Your task to perform on an android device: change notifications settings Image 0: 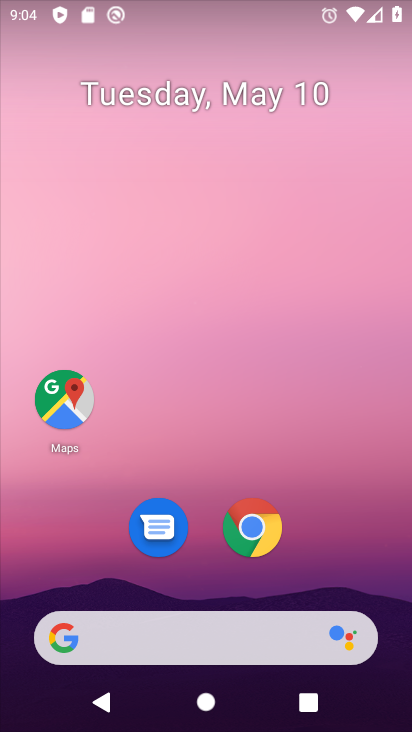
Step 0: drag from (218, 589) to (209, 52)
Your task to perform on an android device: change notifications settings Image 1: 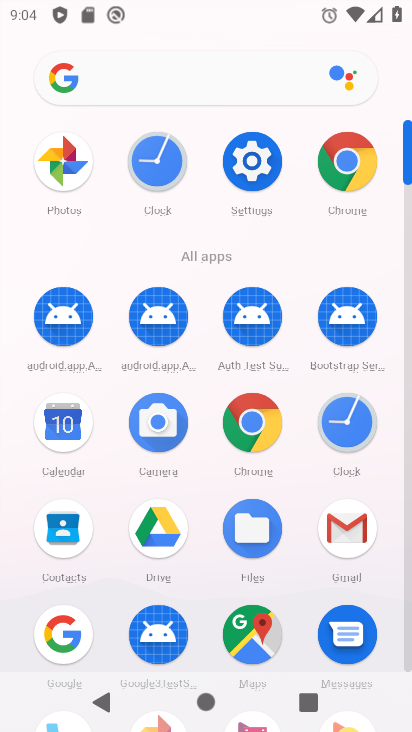
Step 1: click (258, 176)
Your task to perform on an android device: change notifications settings Image 2: 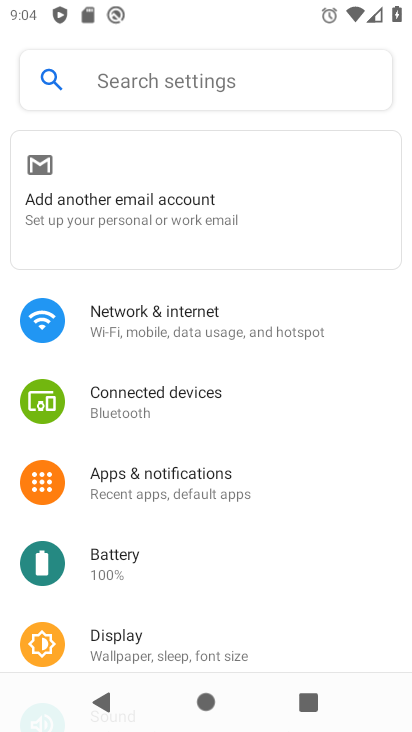
Step 2: click (174, 471)
Your task to perform on an android device: change notifications settings Image 3: 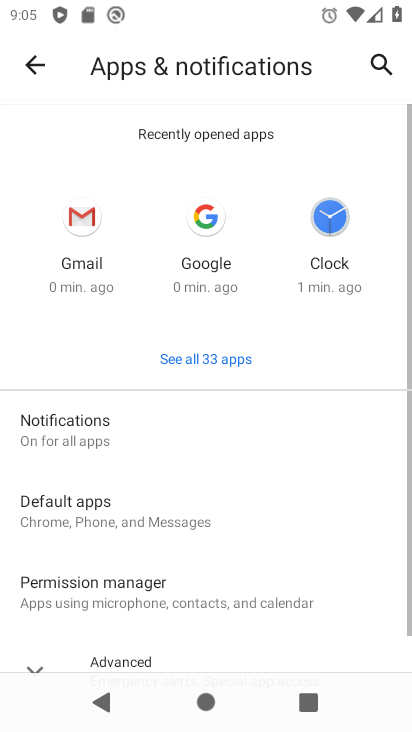
Step 3: click (120, 418)
Your task to perform on an android device: change notifications settings Image 4: 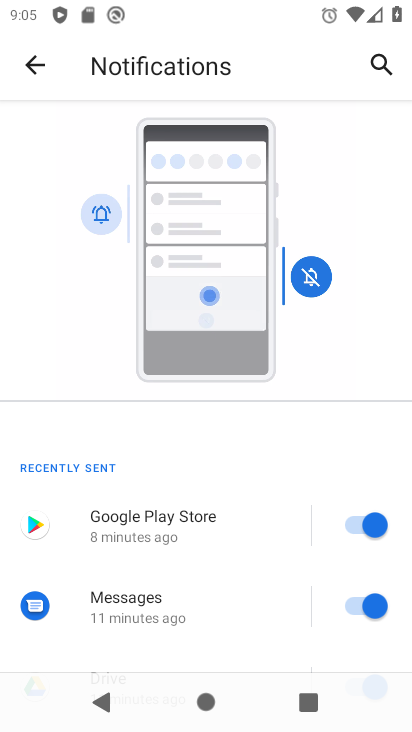
Step 4: drag from (238, 542) to (185, 94)
Your task to perform on an android device: change notifications settings Image 5: 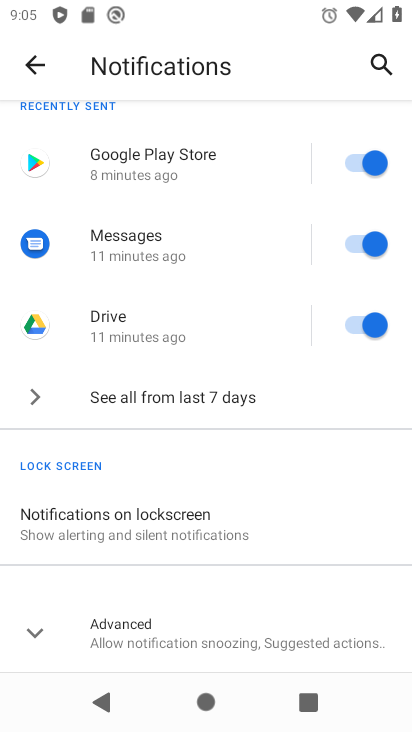
Step 5: click (183, 392)
Your task to perform on an android device: change notifications settings Image 6: 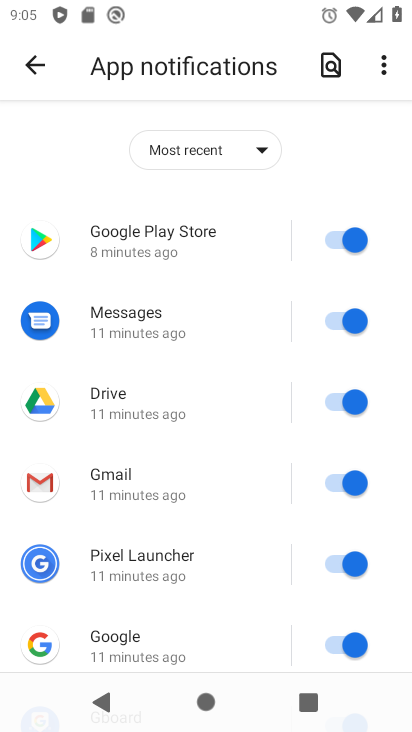
Step 6: click (203, 149)
Your task to perform on an android device: change notifications settings Image 7: 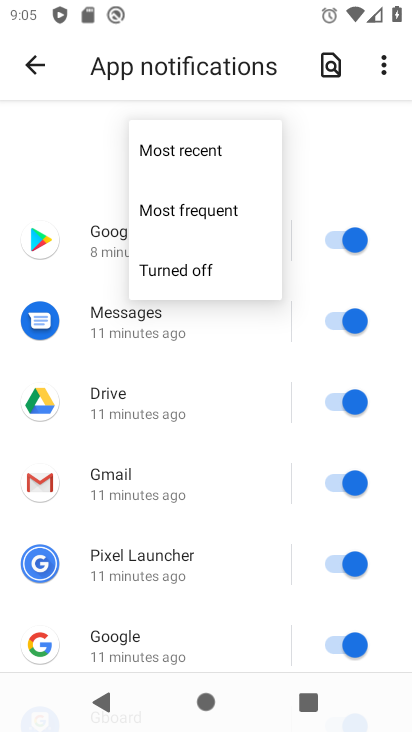
Step 7: click (204, 270)
Your task to perform on an android device: change notifications settings Image 8: 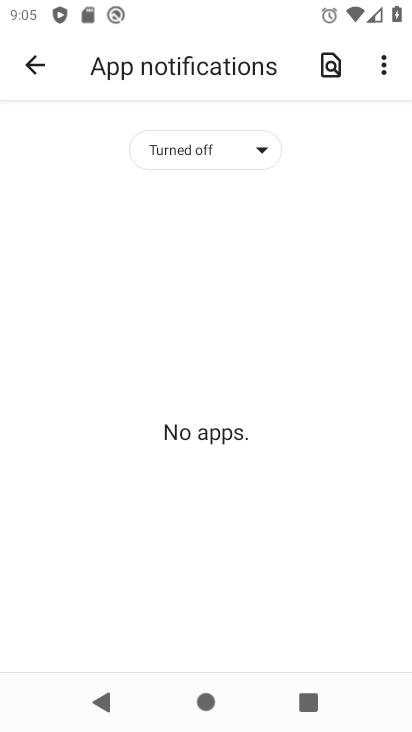
Step 8: task complete